Your task to perform on an android device: change text size in settings app Image 0: 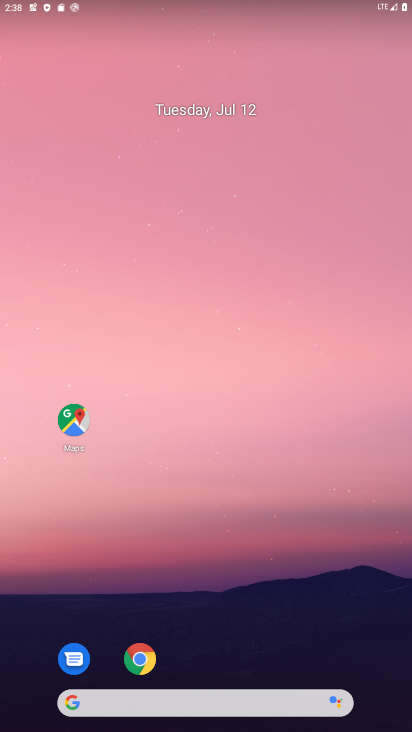
Step 0: drag from (239, 726) to (229, 99)
Your task to perform on an android device: change text size in settings app Image 1: 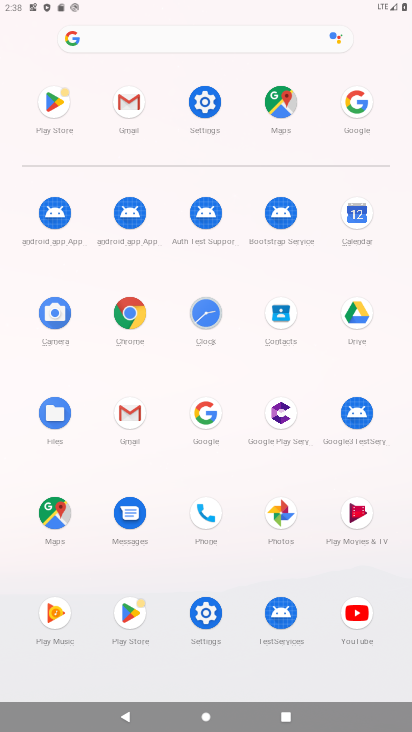
Step 1: click (202, 106)
Your task to perform on an android device: change text size in settings app Image 2: 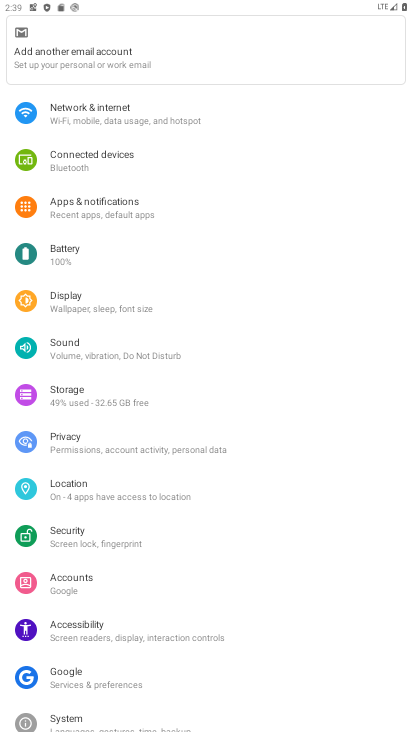
Step 2: click (108, 302)
Your task to perform on an android device: change text size in settings app Image 3: 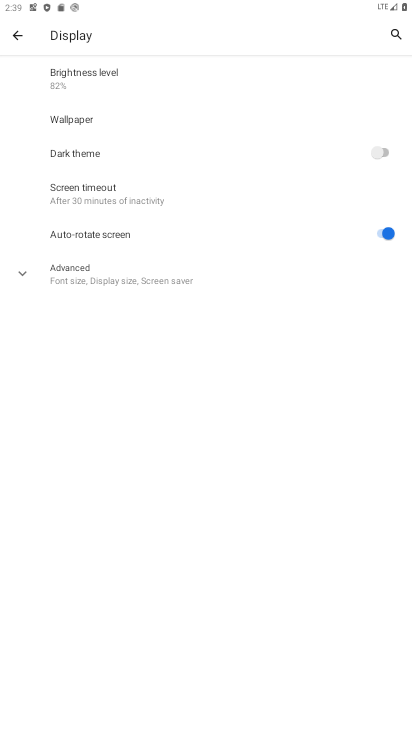
Step 3: click (108, 285)
Your task to perform on an android device: change text size in settings app Image 4: 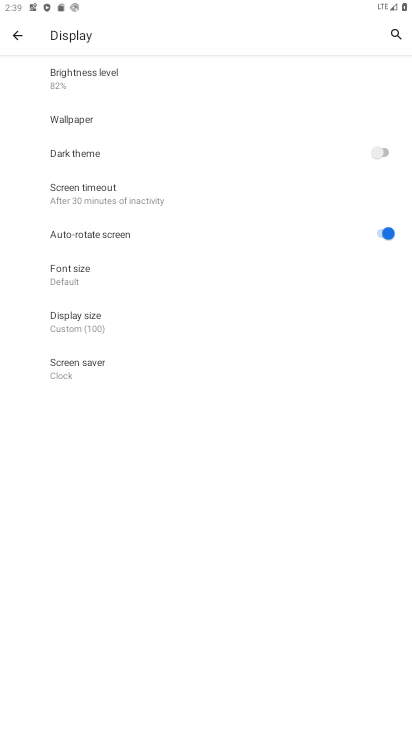
Step 4: click (69, 277)
Your task to perform on an android device: change text size in settings app Image 5: 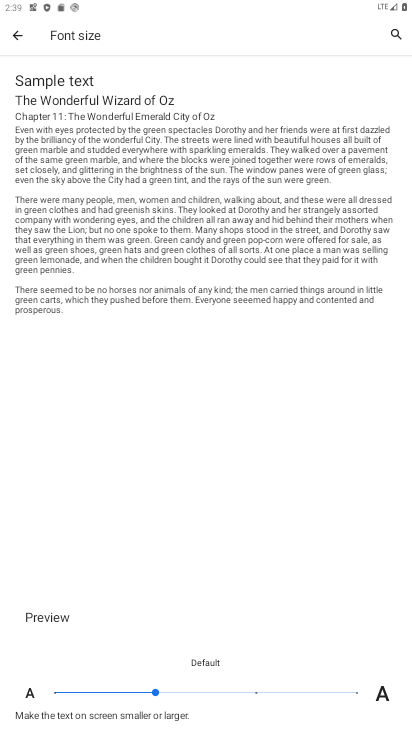
Step 5: click (355, 689)
Your task to perform on an android device: change text size in settings app Image 6: 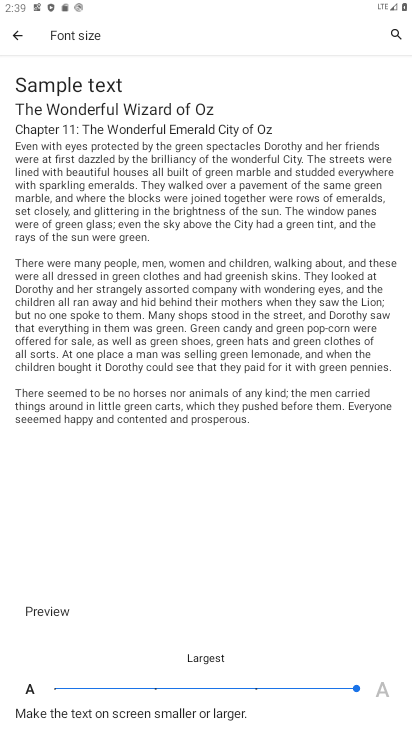
Step 6: task complete